Your task to perform on an android device: star an email in the gmail app Image 0: 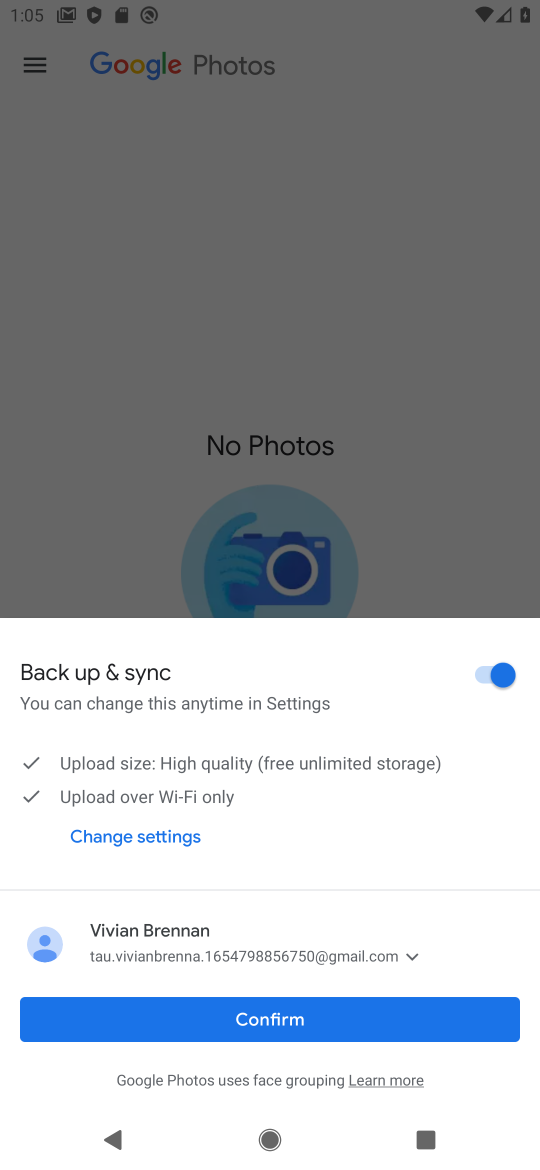
Step 0: press home button
Your task to perform on an android device: star an email in the gmail app Image 1: 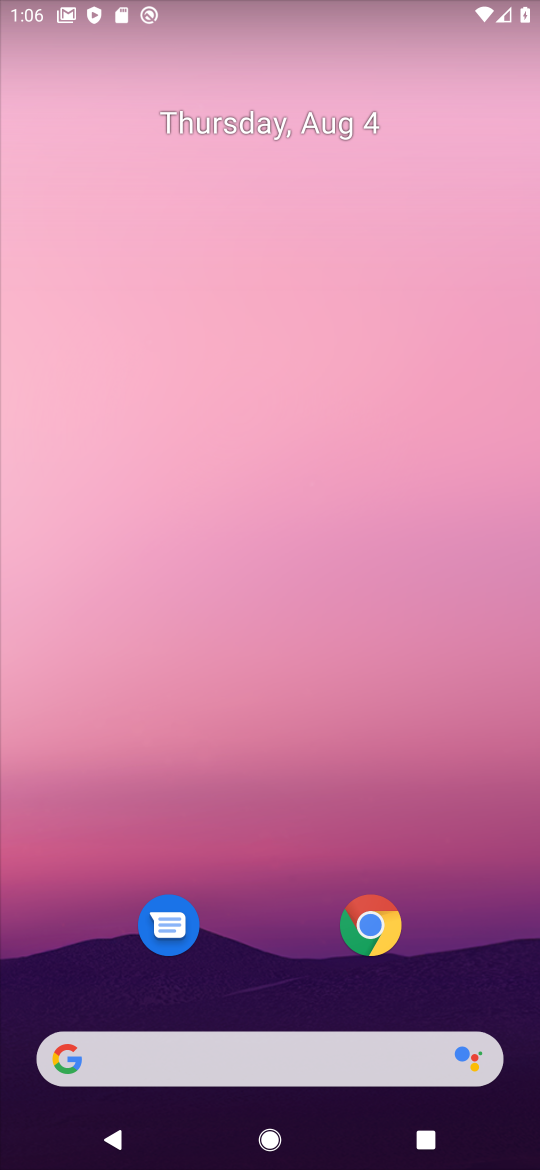
Step 1: drag from (280, 915) to (287, 157)
Your task to perform on an android device: star an email in the gmail app Image 2: 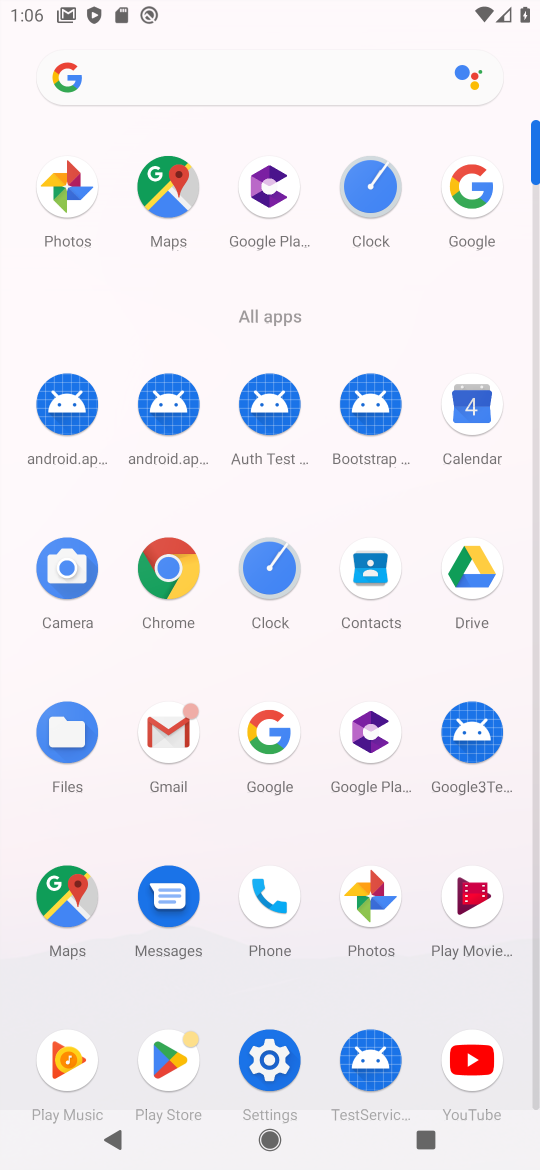
Step 2: click (174, 728)
Your task to perform on an android device: star an email in the gmail app Image 3: 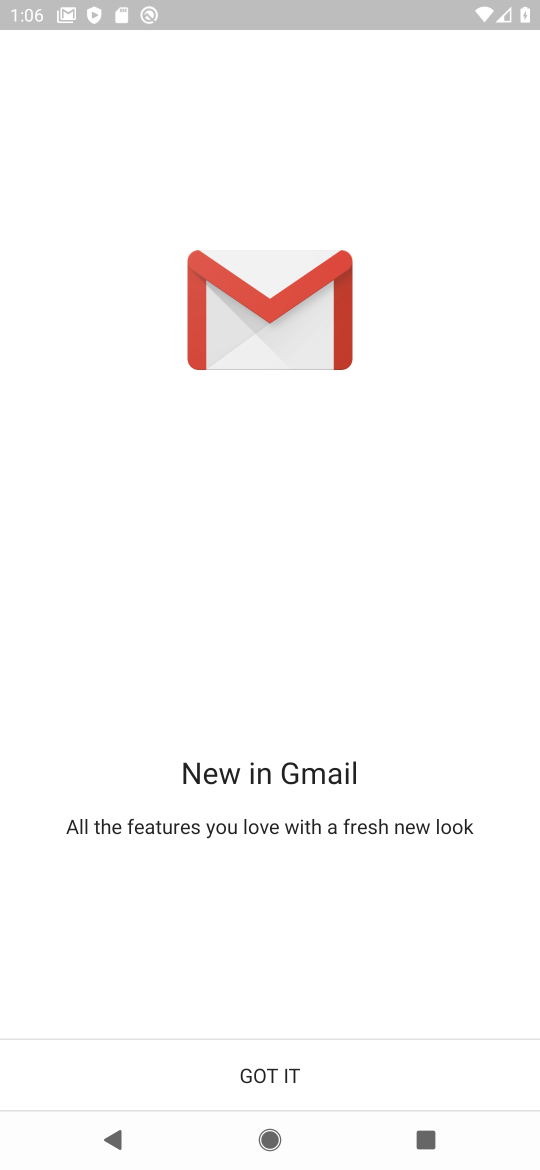
Step 3: click (357, 1069)
Your task to perform on an android device: star an email in the gmail app Image 4: 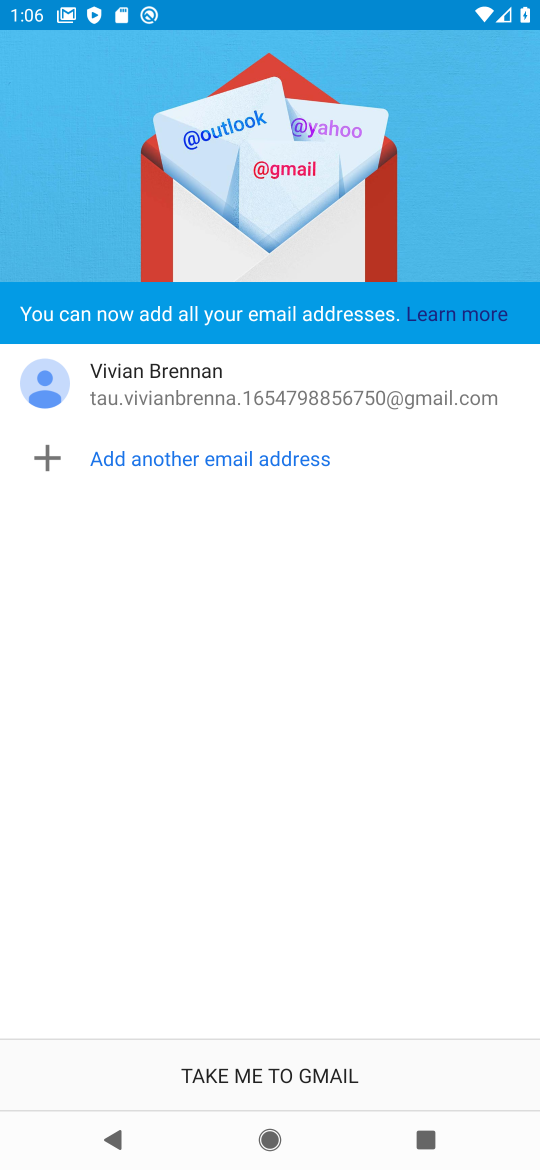
Step 4: click (398, 1079)
Your task to perform on an android device: star an email in the gmail app Image 5: 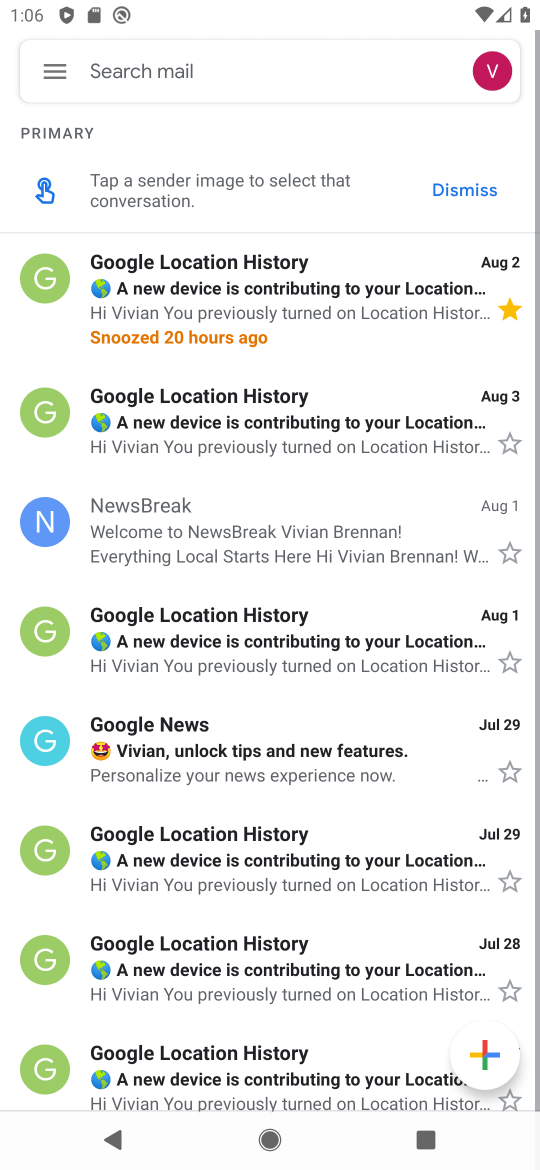
Step 5: click (507, 441)
Your task to perform on an android device: star an email in the gmail app Image 6: 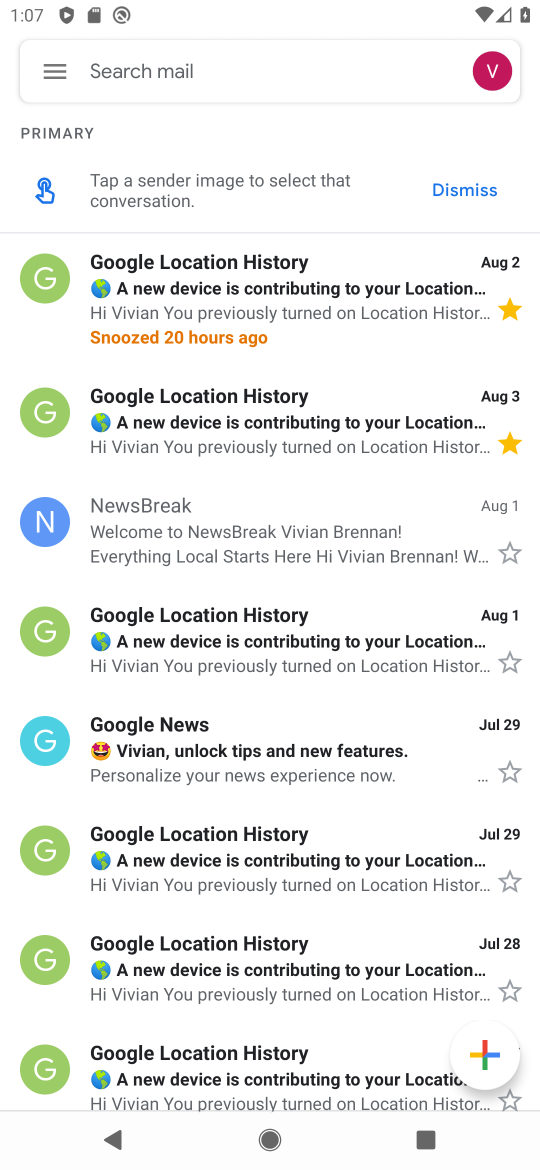
Step 6: task complete